Your task to perform on an android device: Open accessibility settings Image 0: 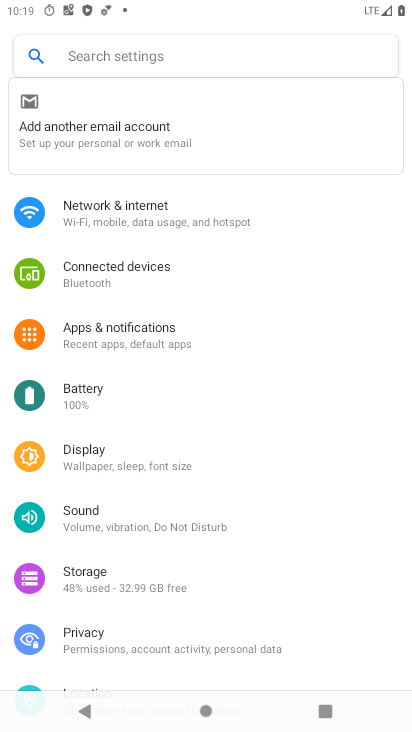
Step 0: click (203, 70)
Your task to perform on an android device: Open accessibility settings Image 1: 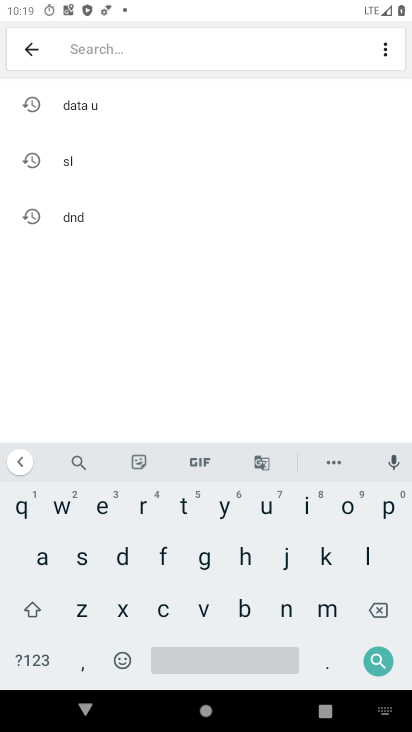
Step 1: click (42, 557)
Your task to perform on an android device: Open accessibility settings Image 2: 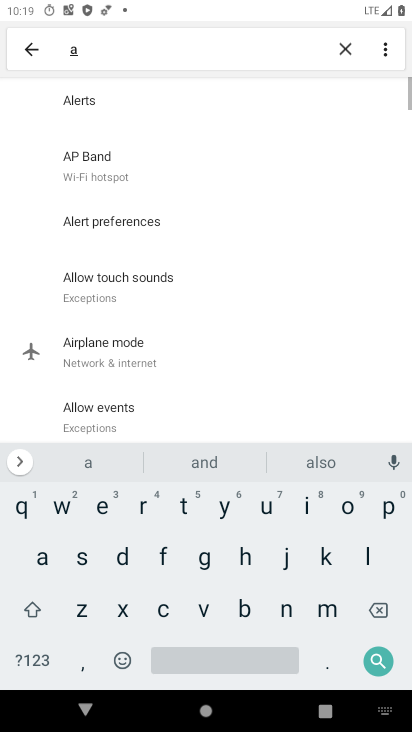
Step 2: click (152, 606)
Your task to perform on an android device: Open accessibility settings Image 3: 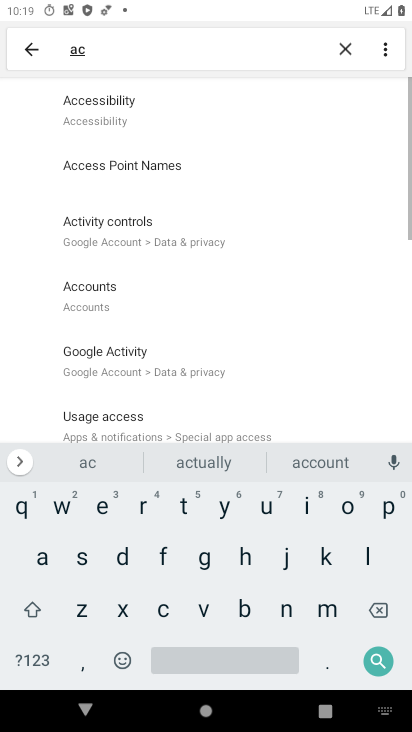
Step 3: click (125, 116)
Your task to perform on an android device: Open accessibility settings Image 4: 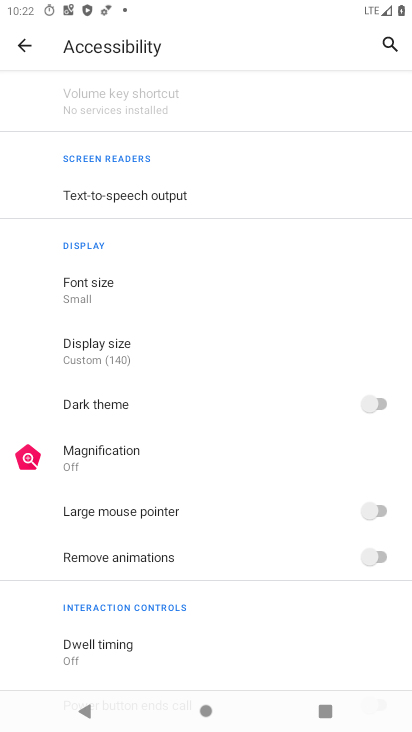
Step 4: task complete